Your task to perform on an android device: show emergency info Image 0: 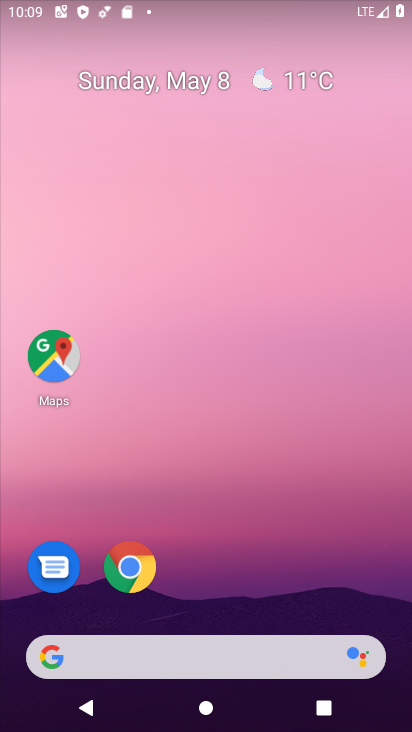
Step 0: drag from (232, 572) to (389, 10)
Your task to perform on an android device: show emergency info Image 1: 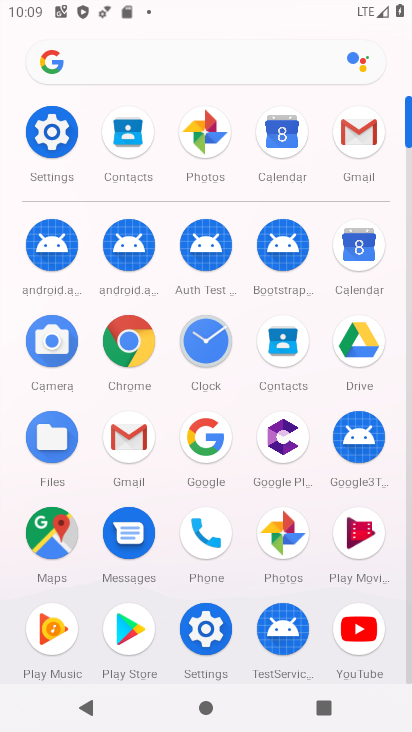
Step 1: click (74, 116)
Your task to perform on an android device: show emergency info Image 2: 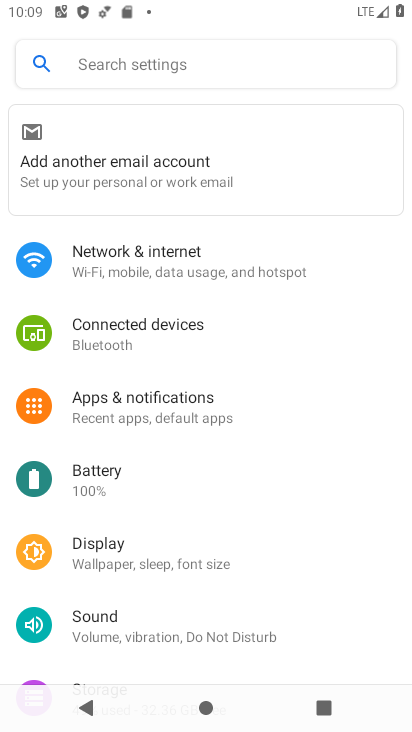
Step 2: drag from (100, 533) to (267, 81)
Your task to perform on an android device: show emergency info Image 3: 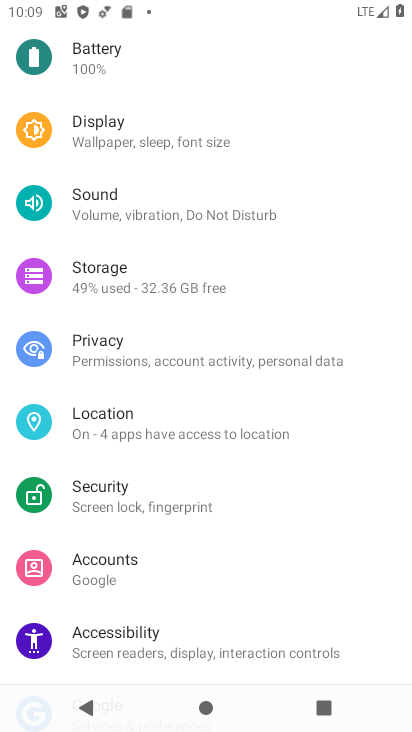
Step 3: drag from (186, 623) to (308, 53)
Your task to perform on an android device: show emergency info Image 4: 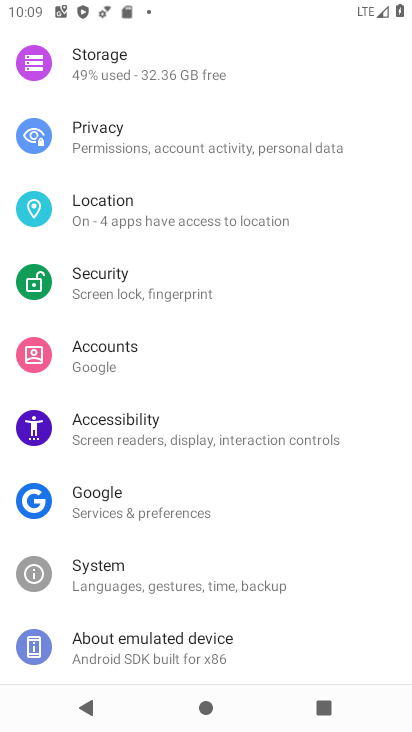
Step 4: click (142, 652)
Your task to perform on an android device: show emergency info Image 5: 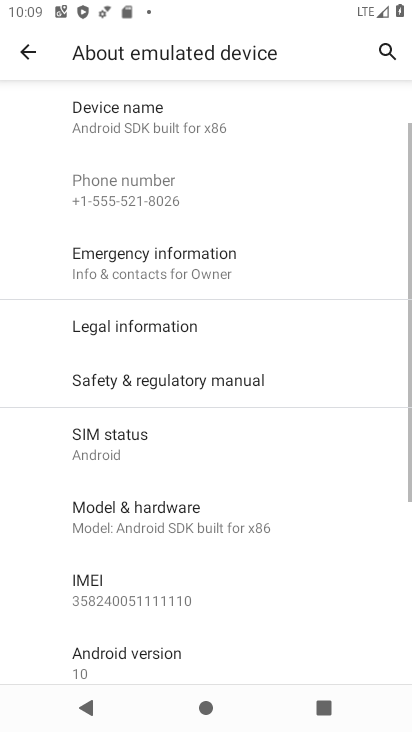
Step 5: click (133, 260)
Your task to perform on an android device: show emergency info Image 6: 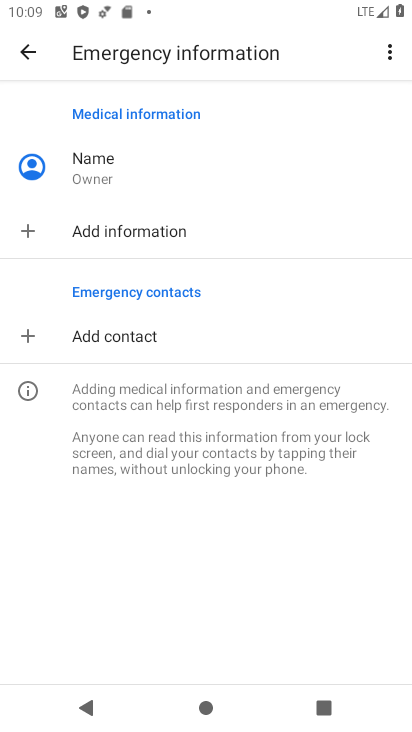
Step 6: task complete